Your task to perform on an android device: check battery use Image 0: 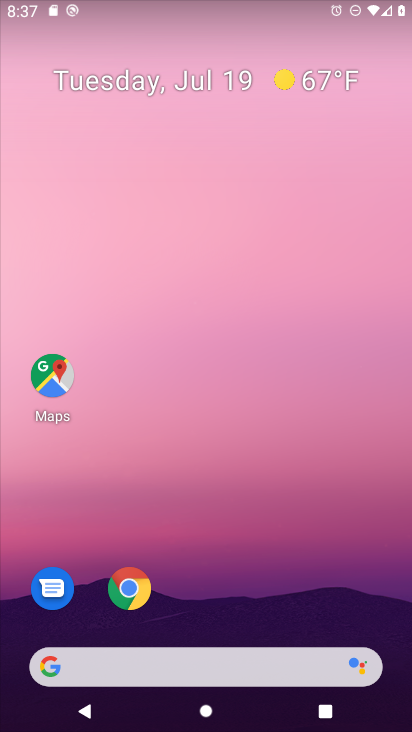
Step 0: drag from (300, 597) to (303, 114)
Your task to perform on an android device: check battery use Image 1: 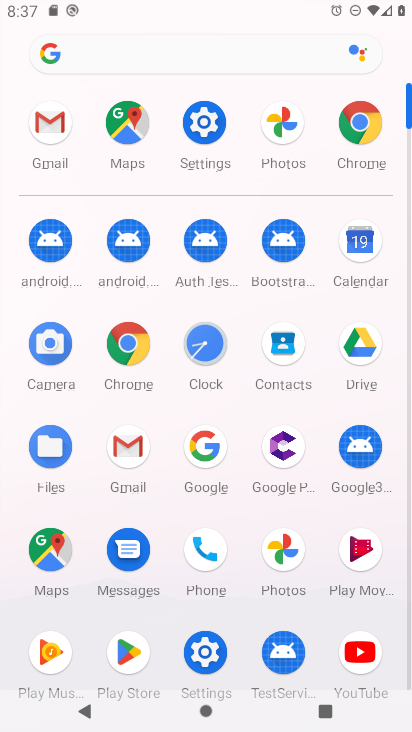
Step 1: click (213, 131)
Your task to perform on an android device: check battery use Image 2: 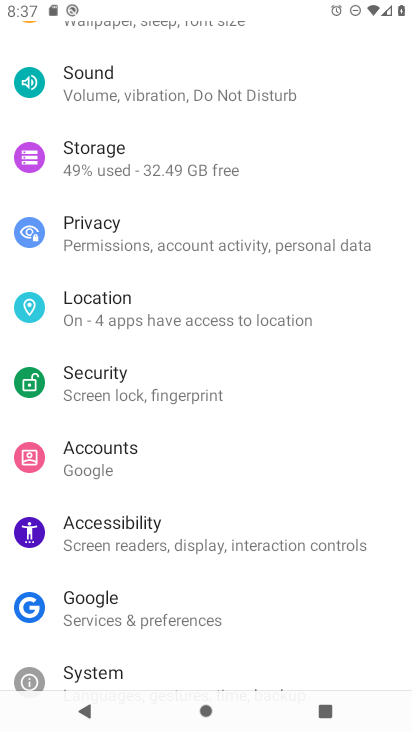
Step 2: drag from (338, 165) to (343, 323)
Your task to perform on an android device: check battery use Image 3: 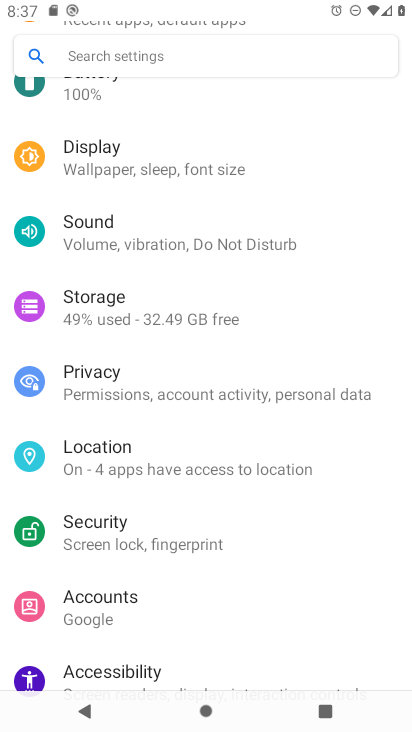
Step 3: drag from (355, 145) to (326, 538)
Your task to perform on an android device: check battery use Image 4: 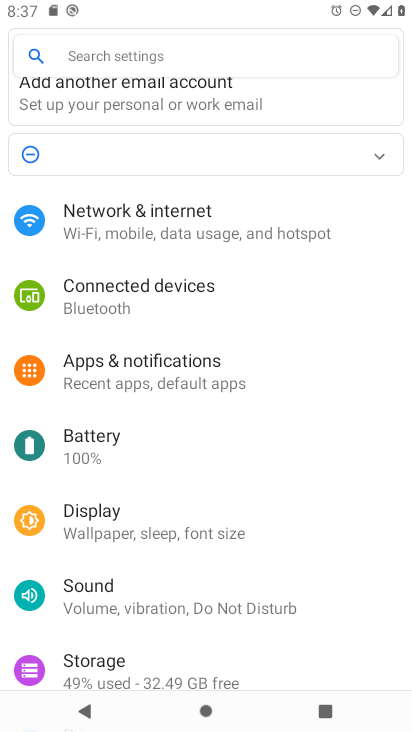
Step 4: click (203, 449)
Your task to perform on an android device: check battery use Image 5: 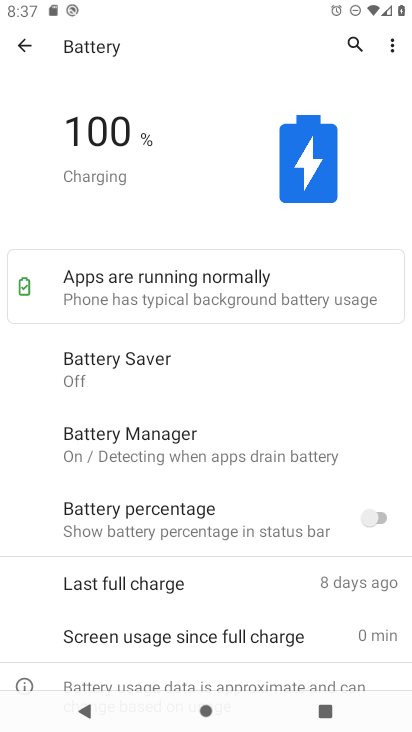
Step 5: click (396, 52)
Your task to perform on an android device: check battery use Image 6: 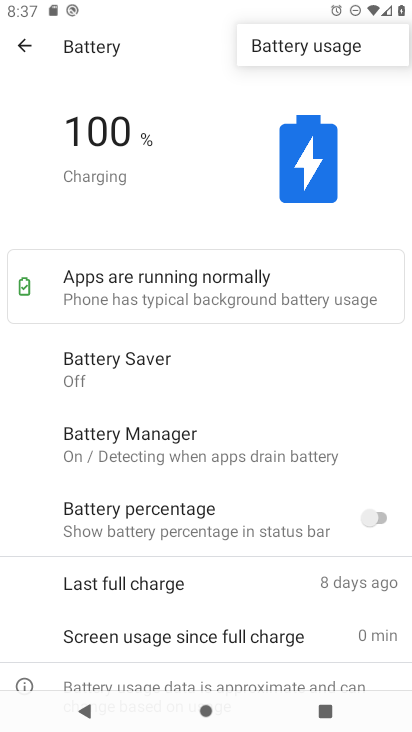
Step 6: click (338, 55)
Your task to perform on an android device: check battery use Image 7: 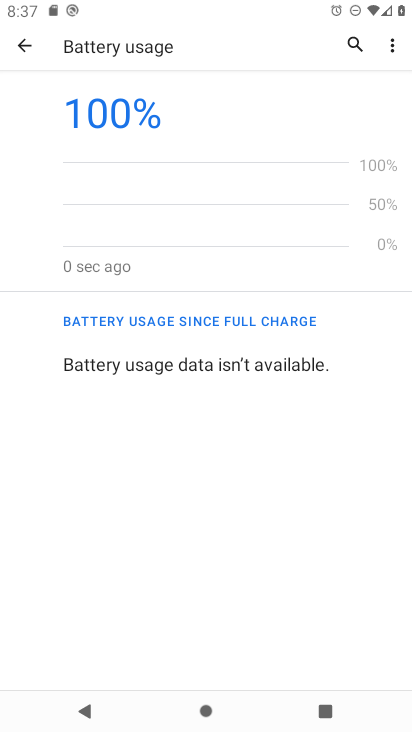
Step 7: task complete